Your task to perform on an android device: check battery use Image 0: 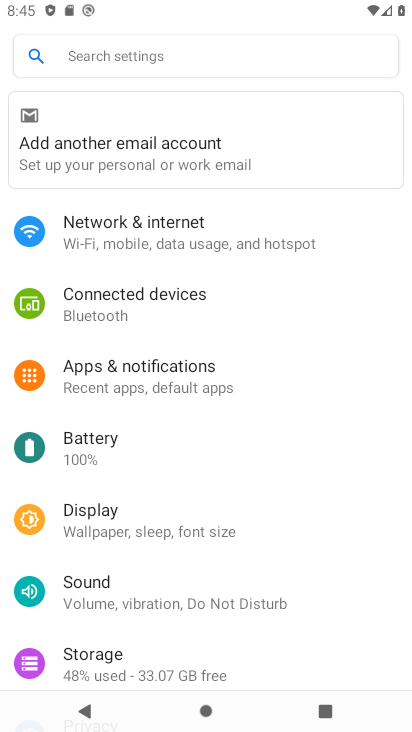
Step 0: click (122, 441)
Your task to perform on an android device: check battery use Image 1: 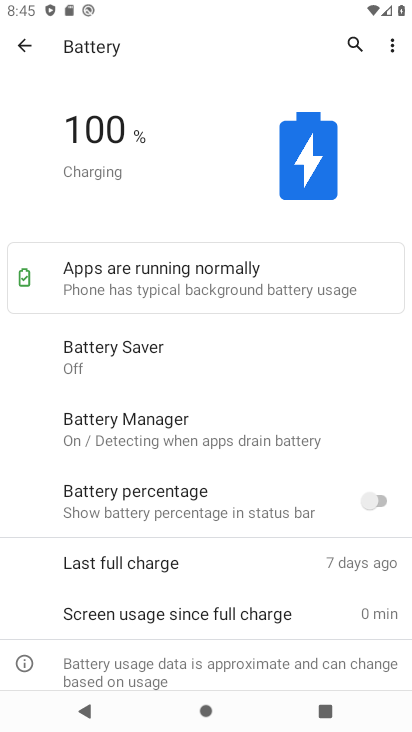
Step 1: task complete